Your task to perform on an android device: Go to ESPN.com Image 0: 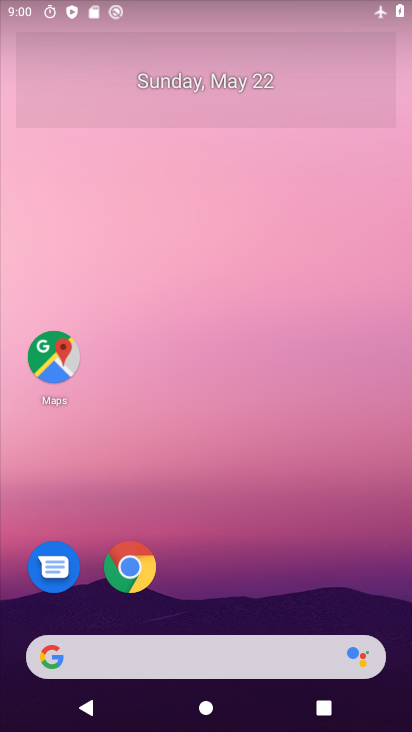
Step 0: click (127, 576)
Your task to perform on an android device: Go to ESPN.com Image 1: 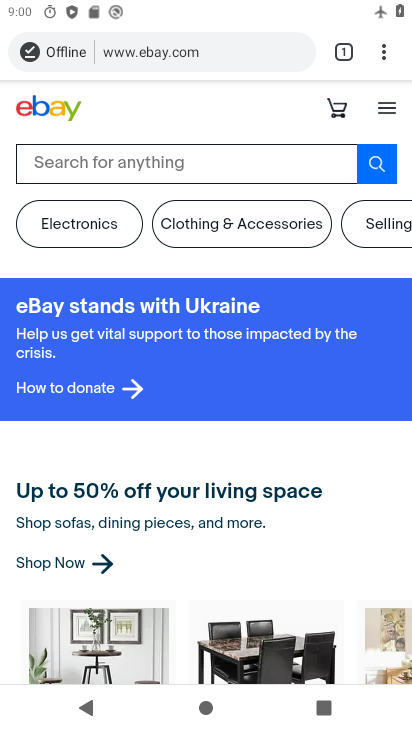
Step 1: click (181, 53)
Your task to perform on an android device: Go to ESPN.com Image 2: 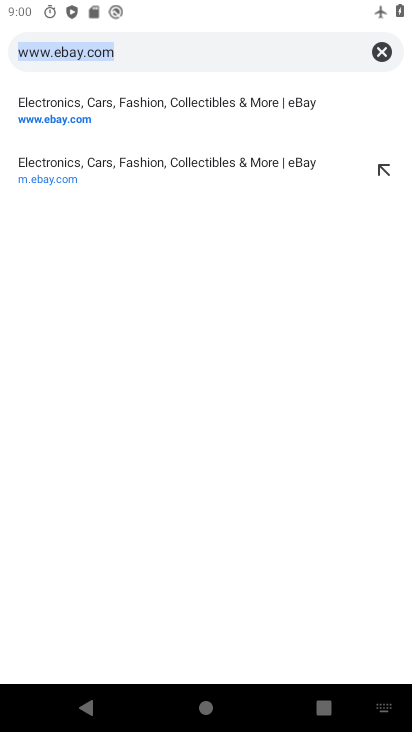
Step 2: type "ESPN.com"
Your task to perform on an android device: Go to ESPN.com Image 3: 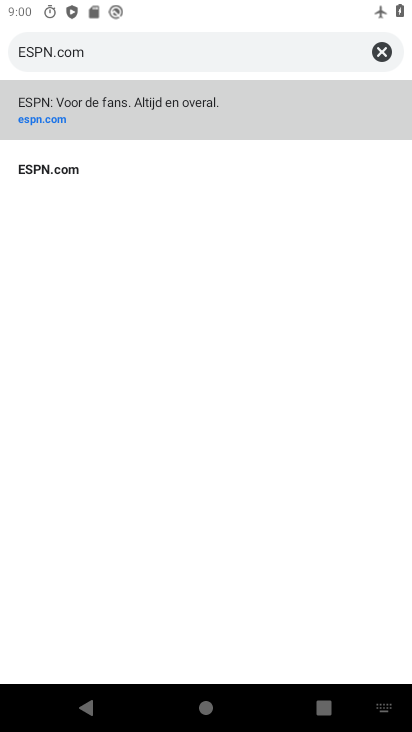
Step 3: click (96, 170)
Your task to perform on an android device: Go to ESPN.com Image 4: 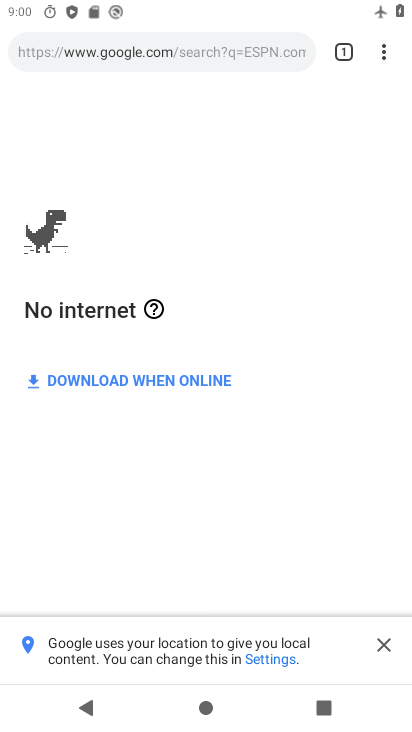
Step 4: task complete